Your task to perform on an android device: Open Amazon Image 0: 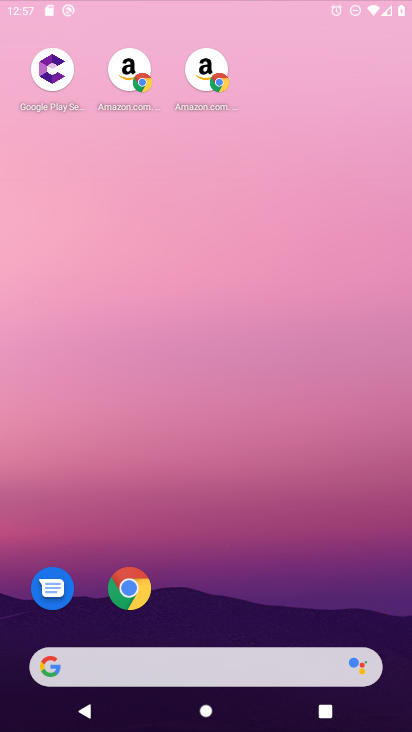
Step 0: drag from (289, 636) to (222, 175)
Your task to perform on an android device: Open Amazon Image 1: 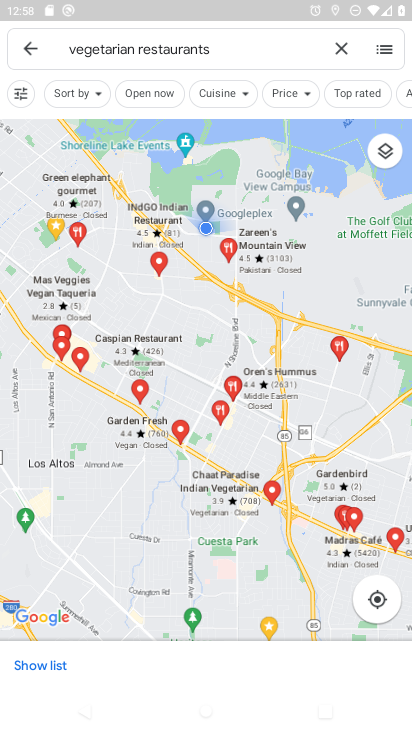
Step 1: press home button
Your task to perform on an android device: Open Amazon Image 2: 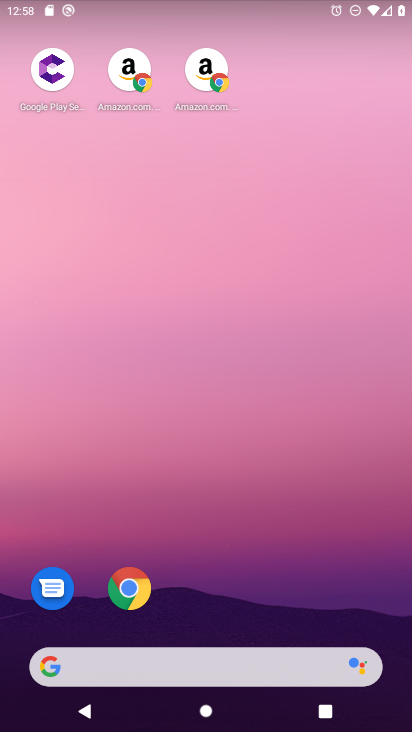
Step 2: drag from (262, 681) to (273, 83)
Your task to perform on an android device: Open Amazon Image 3: 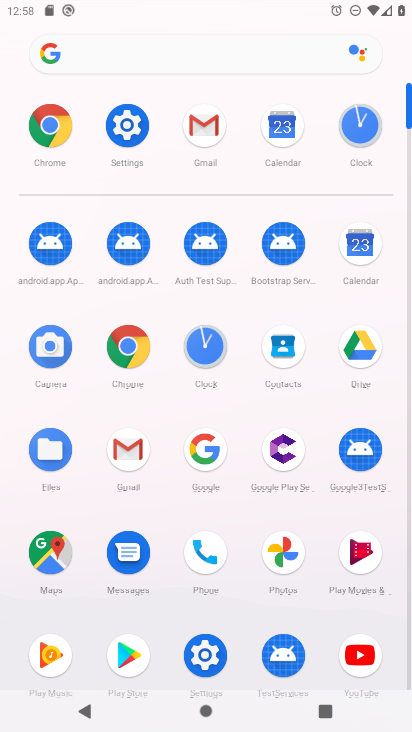
Step 3: click (73, 129)
Your task to perform on an android device: Open Amazon Image 4: 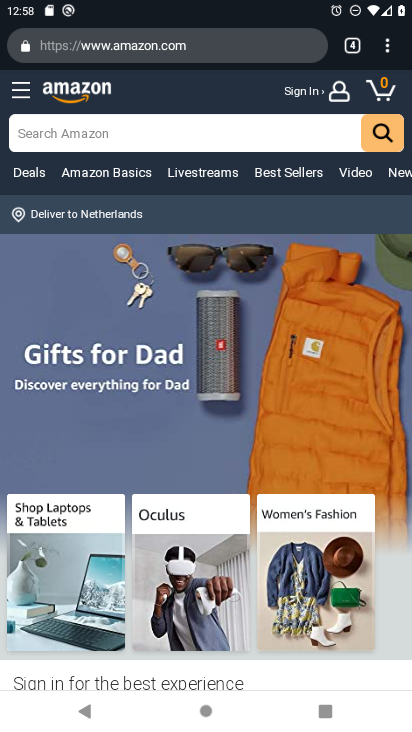
Step 4: click (201, 55)
Your task to perform on an android device: Open Amazon Image 5: 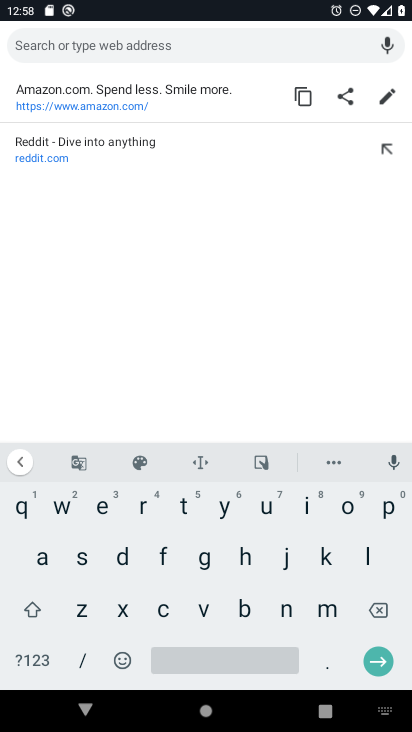
Step 5: click (106, 108)
Your task to perform on an android device: Open Amazon Image 6: 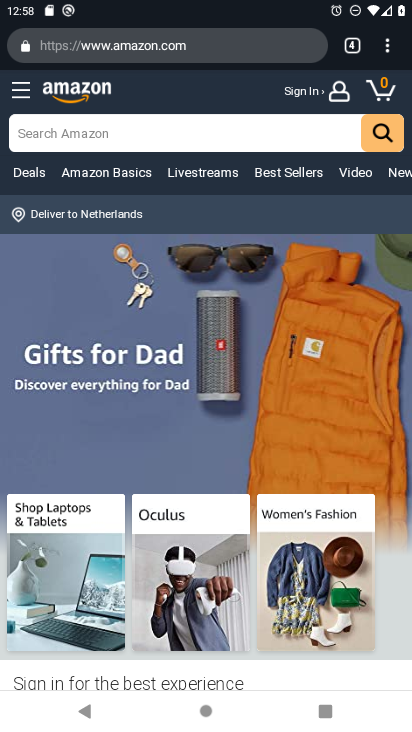
Step 6: task complete